Your task to perform on an android device: turn pop-ups on in chrome Image 0: 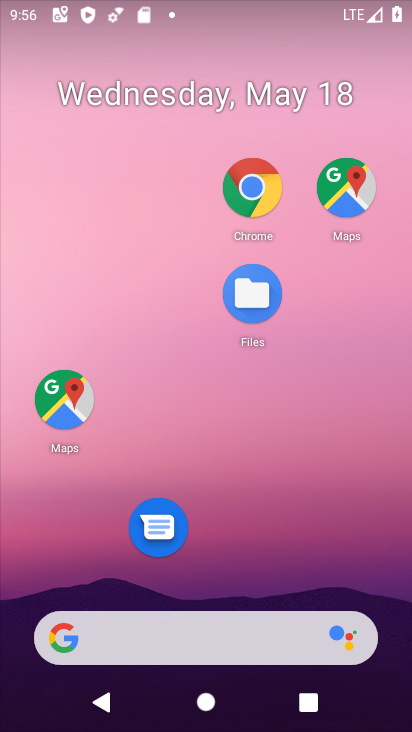
Step 0: click (254, 190)
Your task to perform on an android device: turn pop-ups on in chrome Image 1: 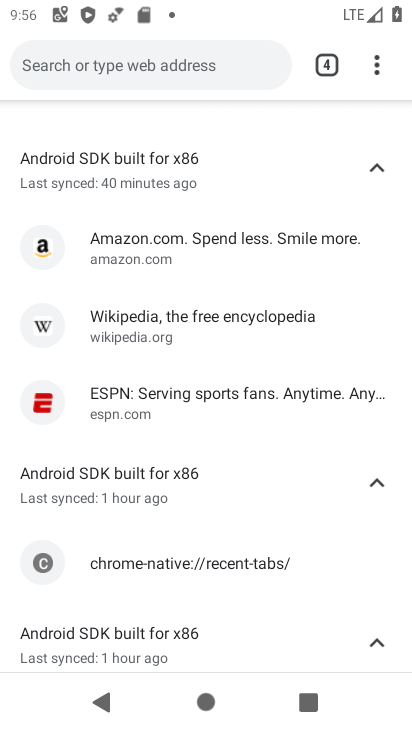
Step 1: click (380, 58)
Your task to perform on an android device: turn pop-ups on in chrome Image 2: 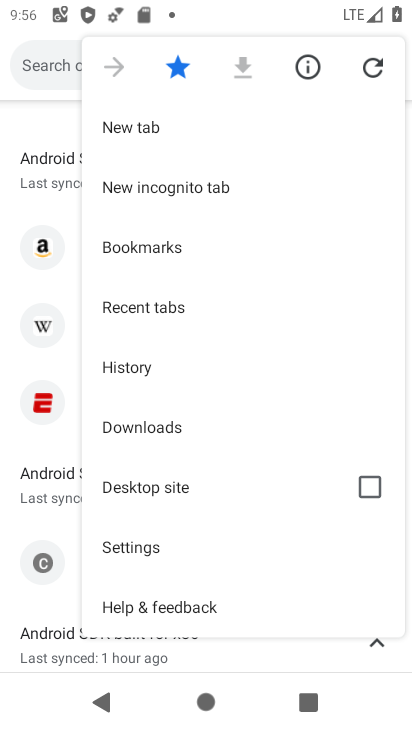
Step 2: drag from (166, 556) to (153, 354)
Your task to perform on an android device: turn pop-ups on in chrome Image 3: 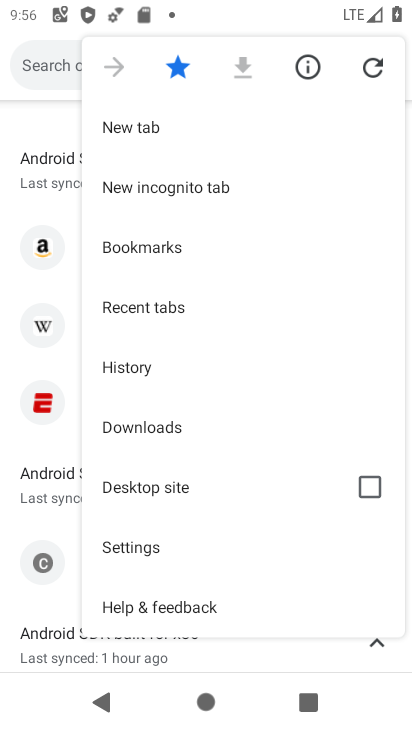
Step 3: click (159, 542)
Your task to perform on an android device: turn pop-ups on in chrome Image 4: 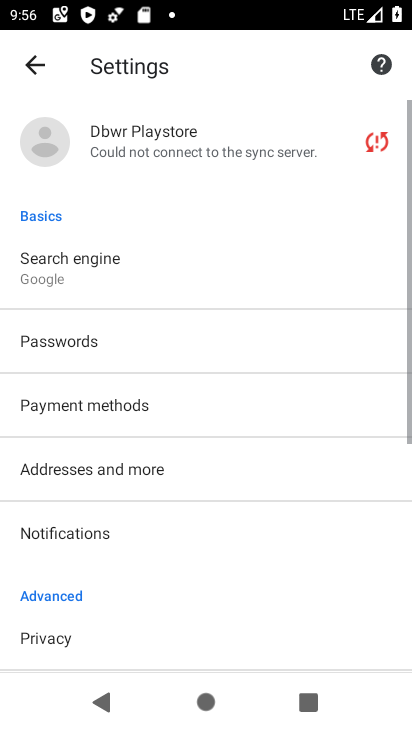
Step 4: drag from (156, 524) to (179, 246)
Your task to perform on an android device: turn pop-ups on in chrome Image 5: 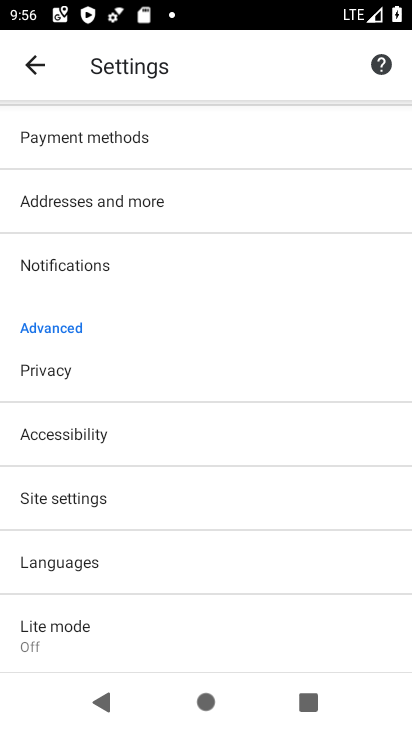
Step 5: drag from (184, 587) to (187, 362)
Your task to perform on an android device: turn pop-ups on in chrome Image 6: 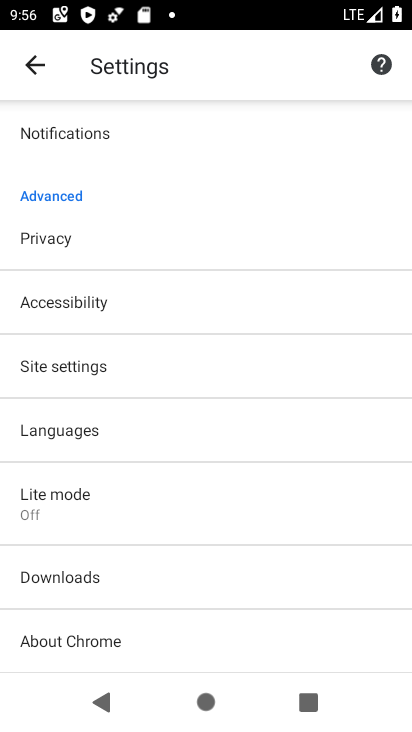
Step 6: drag from (197, 626) to (199, 357)
Your task to perform on an android device: turn pop-ups on in chrome Image 7: 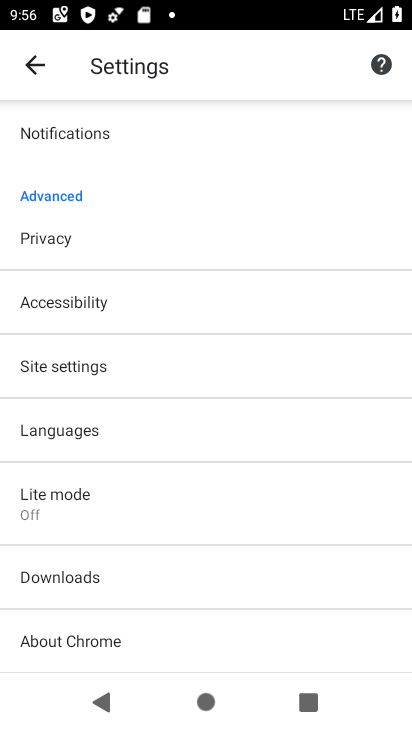
Step 7: click (164, 356)
Your task to perform on an android device: turn pop-ups on in chrome Image 8: 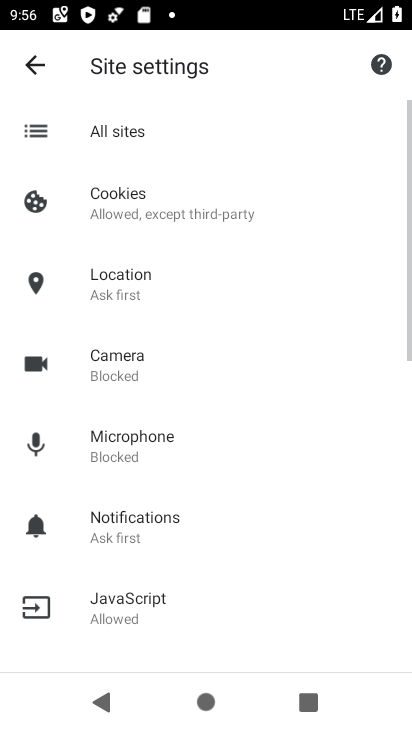
Step 8: drag from (233, 547) to (264, 235)
Your task to perform on an android device: turn pop-ups on in chrome Image 9: 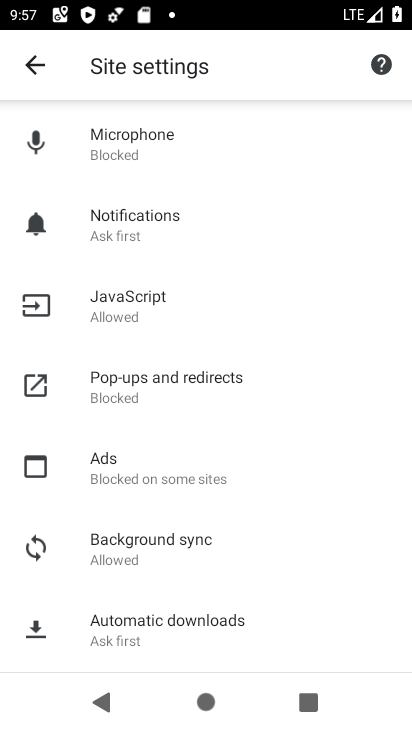
Step 9: click (220, 373)
Your task to perform on an android device: turn pop-ups on in chrome Image 10: 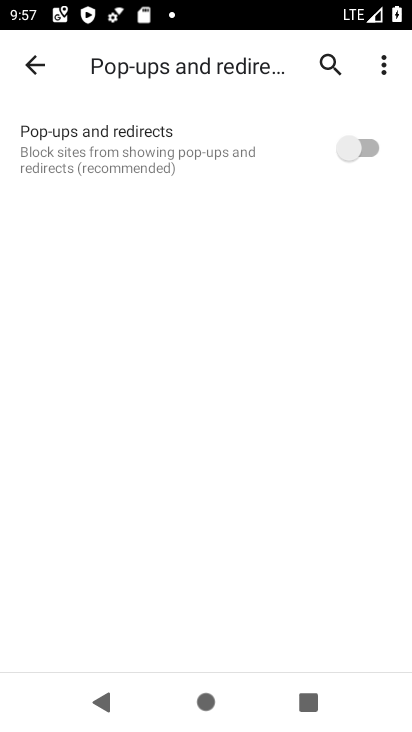
Step 10: click (353, 141)
Your task to perform on an android device: turn pop-ups on in chrome Image 11: 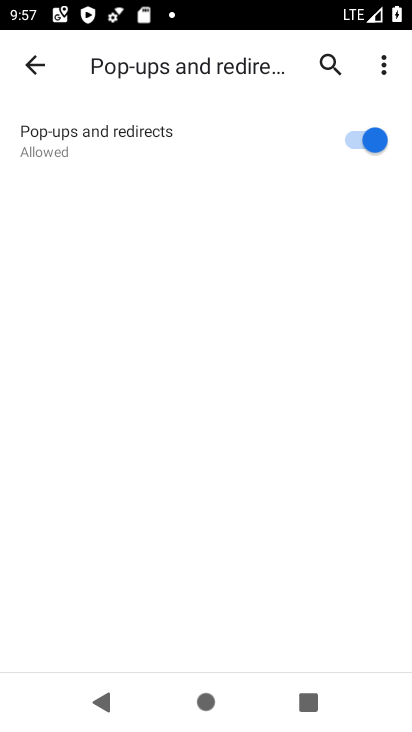
Step 11: task complete